Your task to perform on an android device: change text size in settings app Image 0: 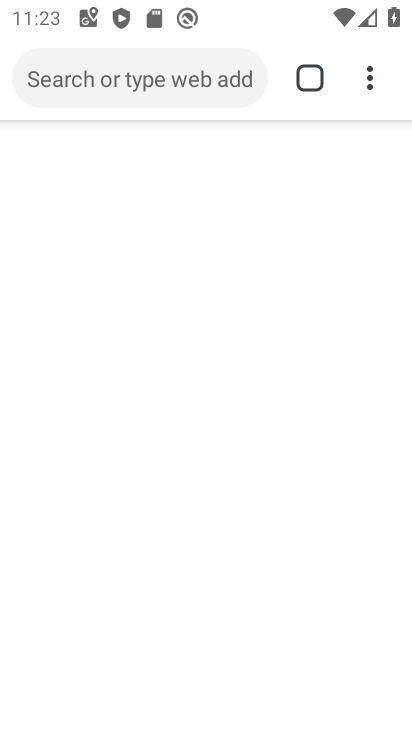
Step 0: click (65, 428)
Your task to perform on an android device: change text size in settings app Image 1: 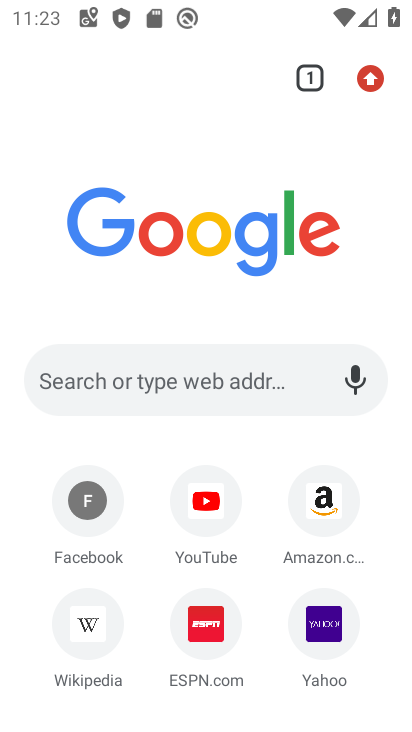
Step 1: press home button
Your task to perform on an android device: change text size in settings app Image 2: 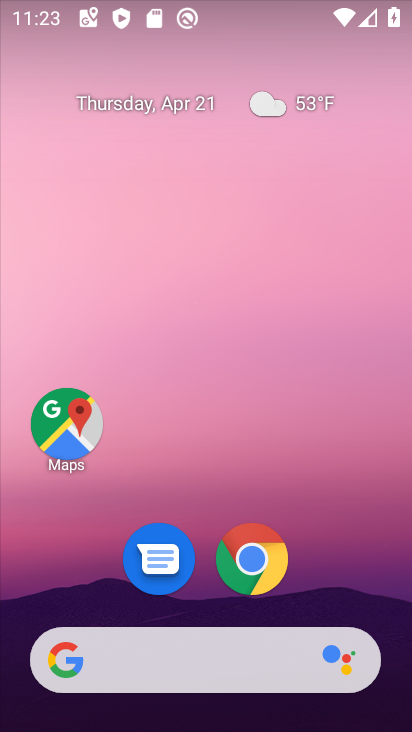
Step 2: drag from (354, 576) to (354, 10)
Your task to perform on an android device: change text size in settings app Image 3: 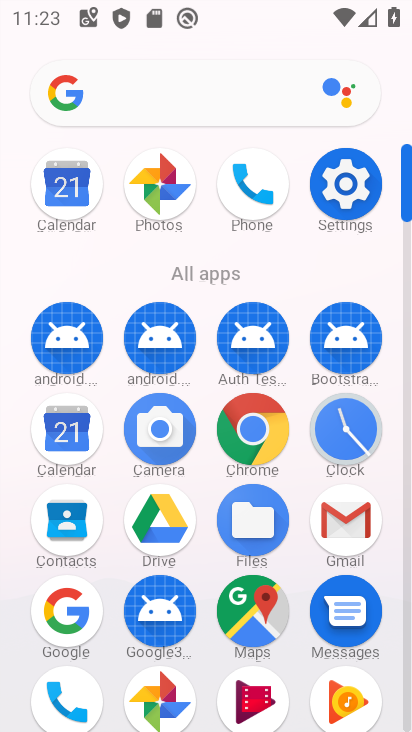
Step 3: click (348, 177)
Your task to perform on an android device: change text size in settings app Image 4: 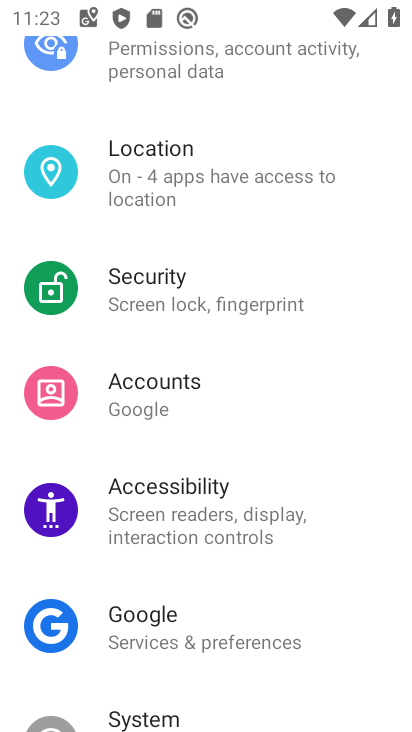
Step 4: click (164, 503)
Your task to perform on an android device: change text size in settings app Image 5: 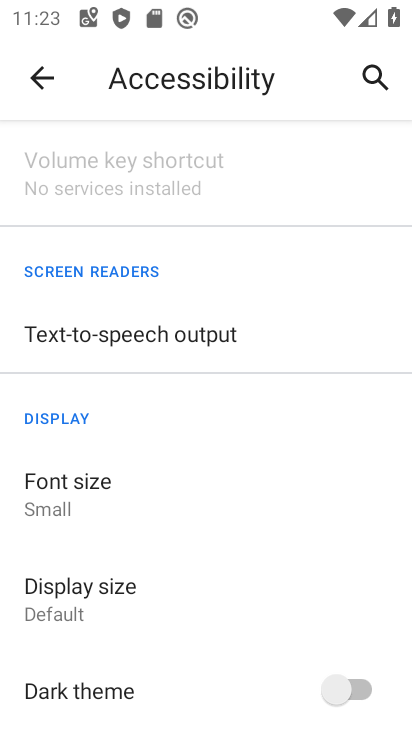
Step 5: click (36, 502)
Your task to perform on an android device: change text size in settings app Image 6: 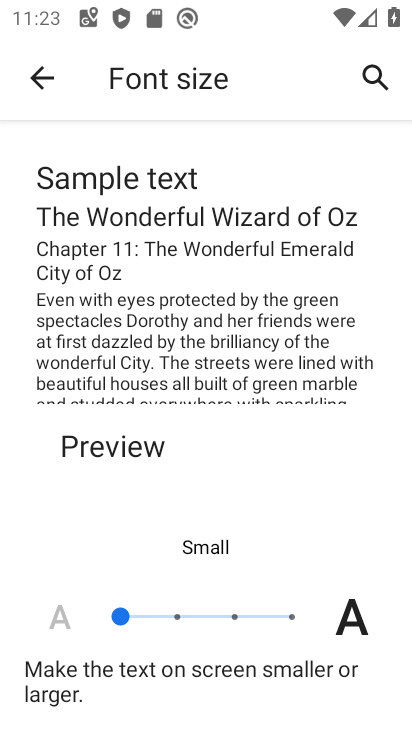
Step 6: click (177, 613)
Your task to perform on an android device: change text size in settings app Image 7: 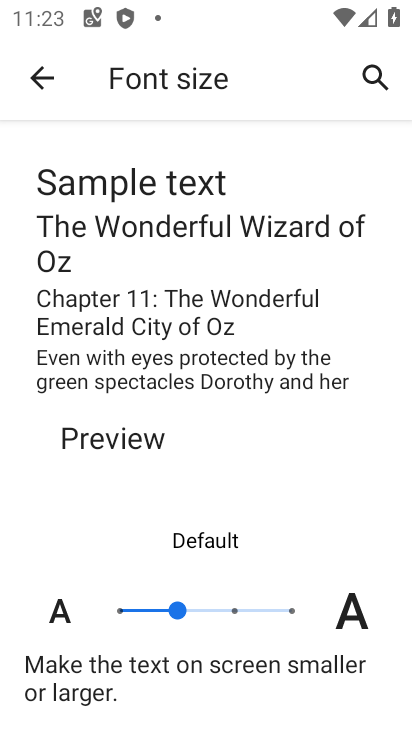
Step 7: task complete